Your task to perform on an android device: open app "VLC for Android" (install if not already installed) Image 0: 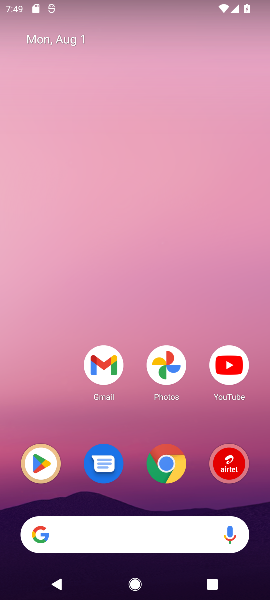
Step 0: click (35, 482)
Your task to perform on an android device: open app "VLC for Android" (install if not already installed) Image 1: 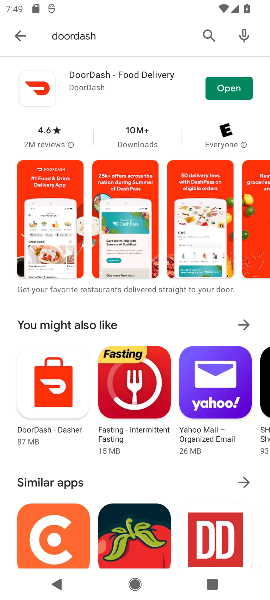
Step 1: click (207, 29)
Your task to perform on an android device: open app "VLC for Android" (install if not already installed) Image 2: 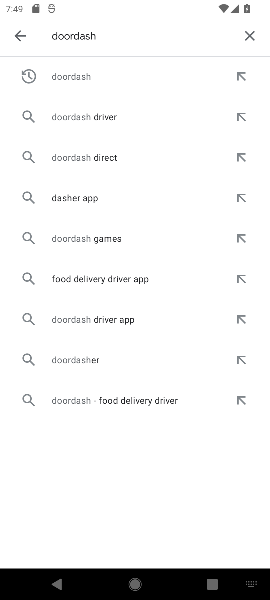
Step 2: click (247, 35)
Your task to perform on an android device: open app "VLC for Android" (install if not already installed) Image 3: 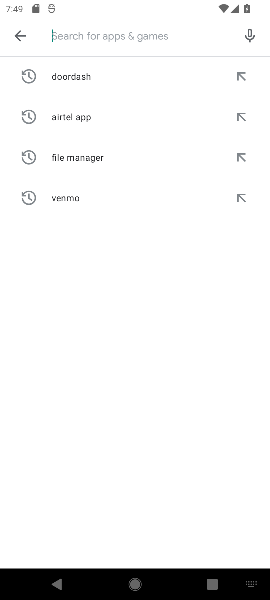
Step 3: type "vlc"
Your task to perform on an android device: open app "VLC for Android" (install if not already installed) Image 4: 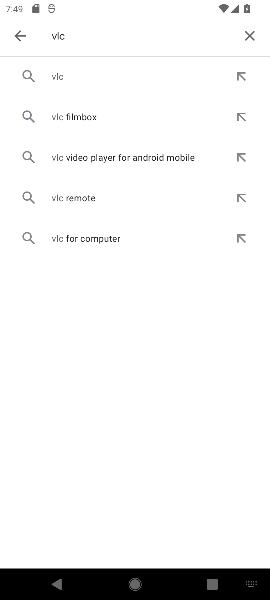
Step 4: click (172, 76)
Your task to perform on an android device: open app "VLC for Android" (install if not already installed) Image 5: 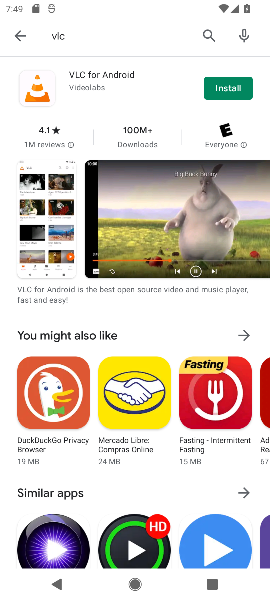
Step 5: click (214, 84)
Your task to perform on an android device: open app "VLC for Android" (install if not already installed) Image 6: 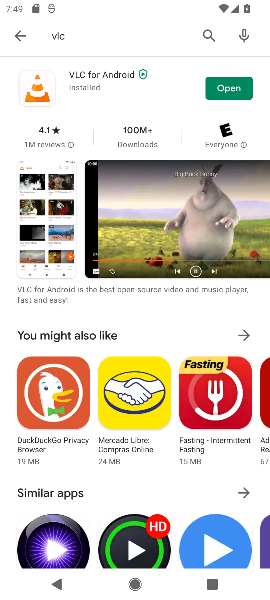
Step 6: click (229, 85)
Your task to perform on an android device: open app "VLC for Android" (install if not already installed) Image 7: 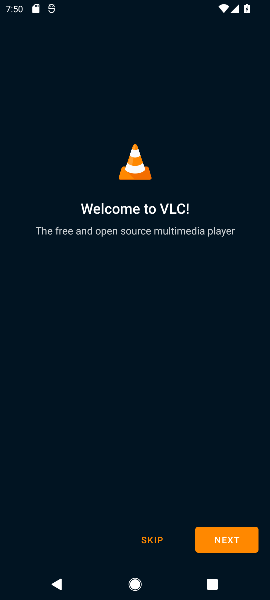
Step 7: press home button
Your task to perform on an android device: open app "VLC for Android" (install if not already installed) Image 8: 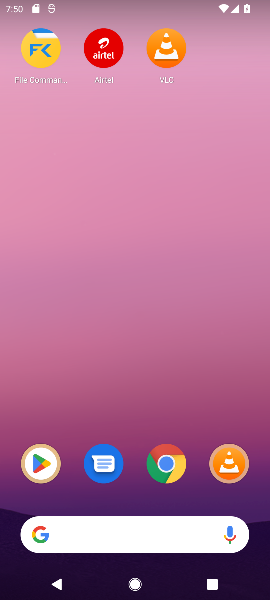
Step 8: click (232, 453)
Your task to perform on an android device: open app "VLC for Android" (install if not already installed) Image 9: 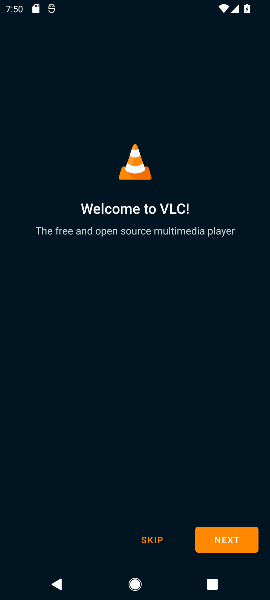
Step 9: task complete